Your task to perform on an android device: Search for hotels in Seattle Image 0: 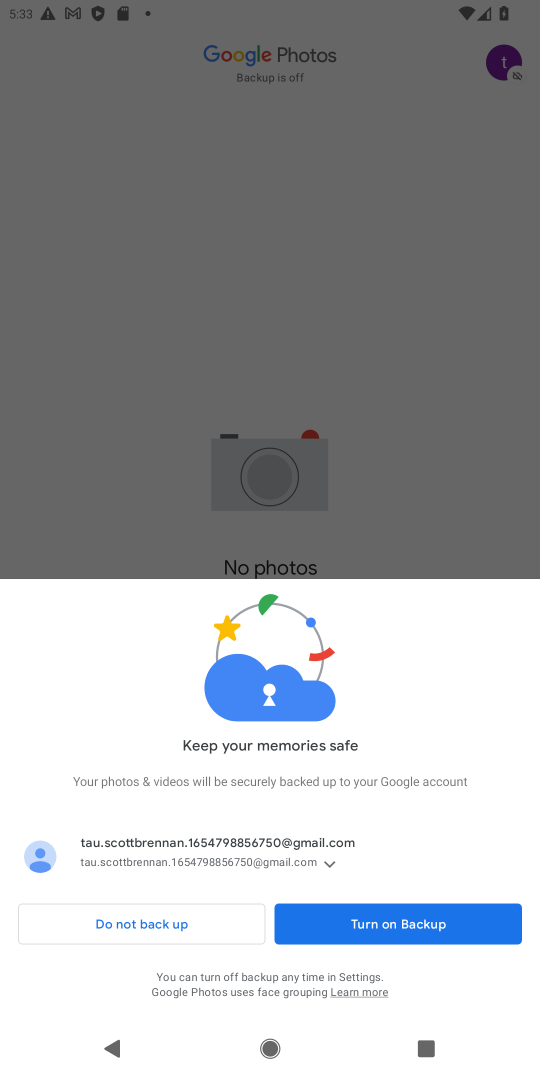
Step 0: press home button
Your task to perform on an android device: Search for hotels in Seattle Image 1: 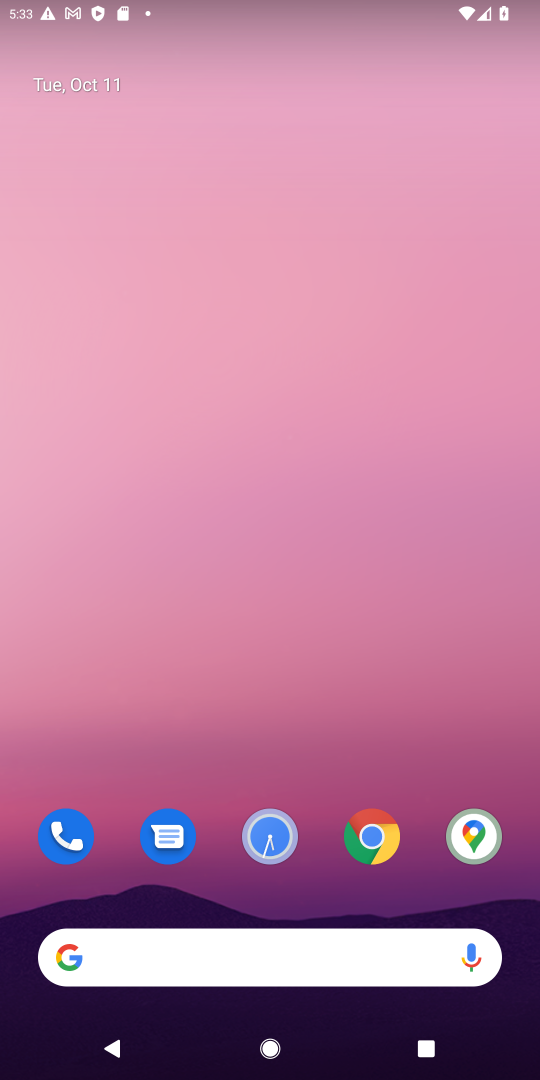
Step 1: click (372, 838)
Your task to perform on an android device: Search for hotels in Seattle Image 2: 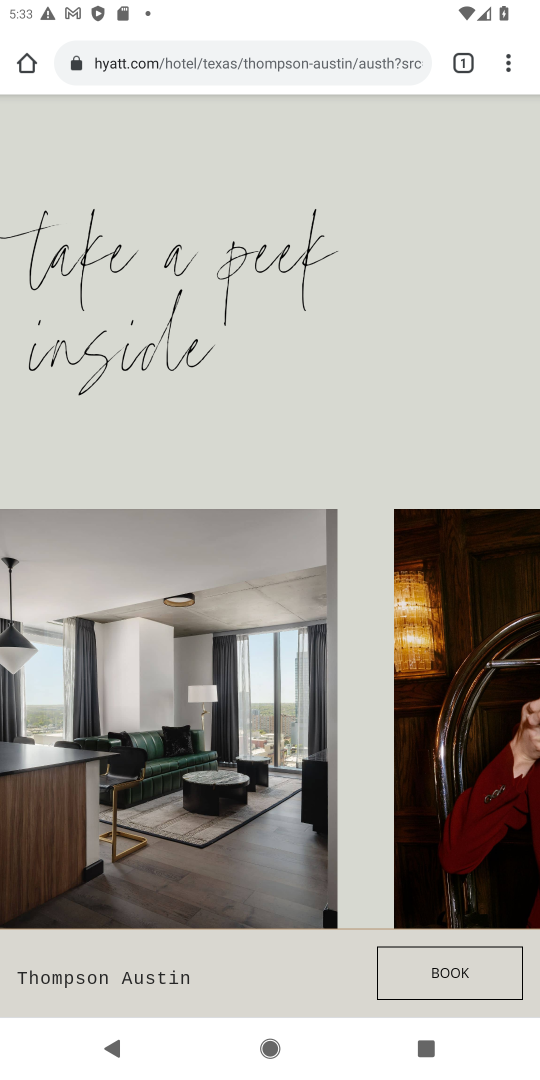
Step 2: click (243, 47)
Your task to perform on an android device: Search for hotels in Seattle Image 3: 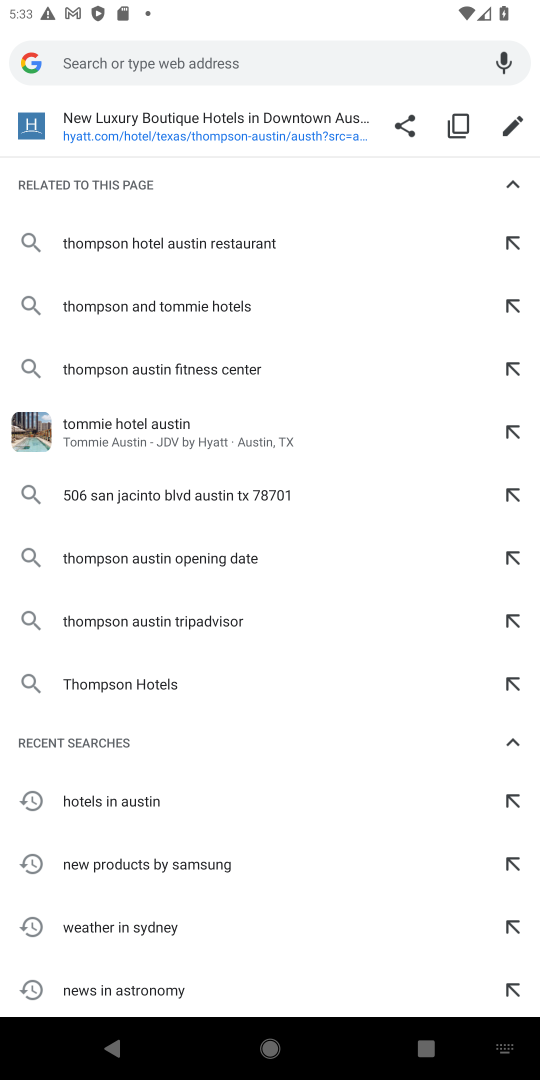
Step 3: type "hotels in seattle"
Your task to perform on an android device: Search for hotels in Seattle Image 4: 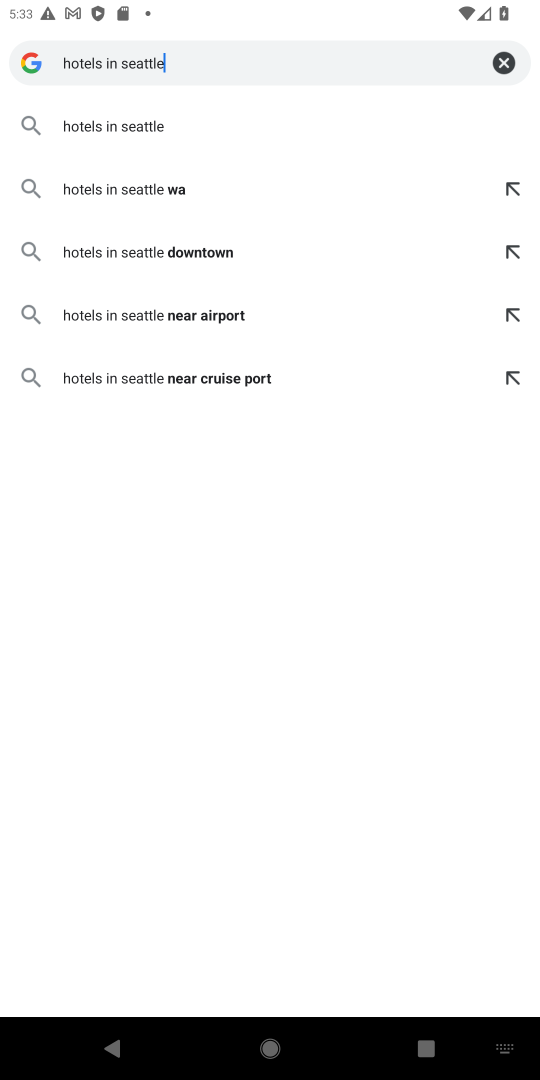
Step 4: click (103, 121)
Your task to perform on an android device: Search for hotels in Seattle Image 5: 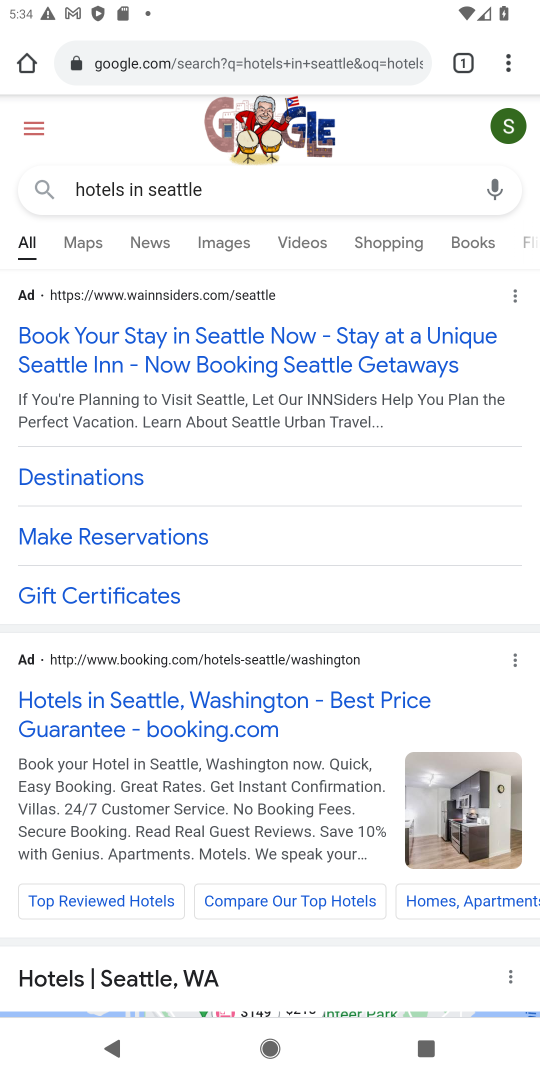
Step 5: click (131, 709)
Your task to perform on an android device: Search for hotels in Seattle Image 6: 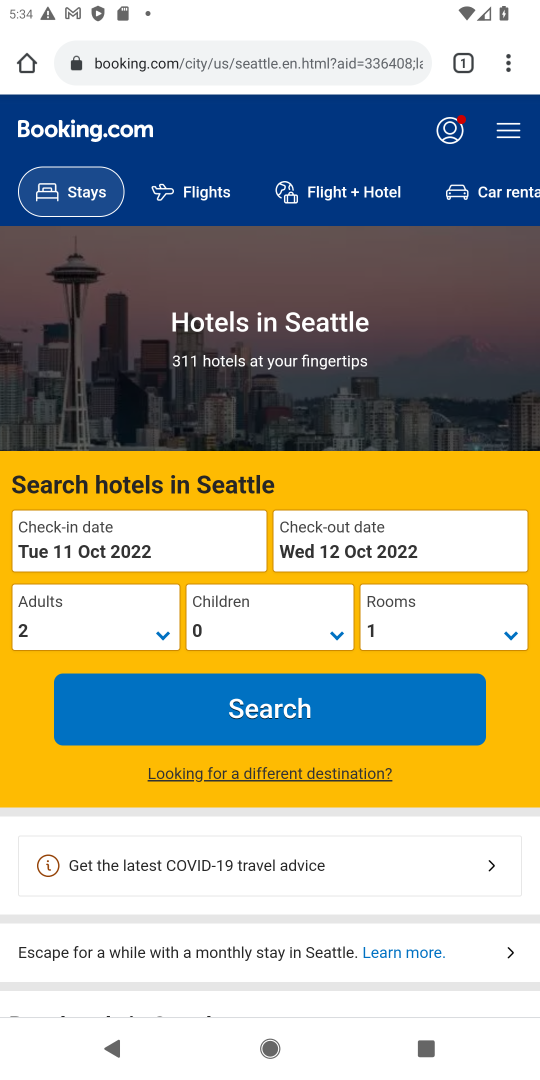
Step 6: click (264, 711)
Your task to perform on an android device: Search for hotels in Seattle Image 7: 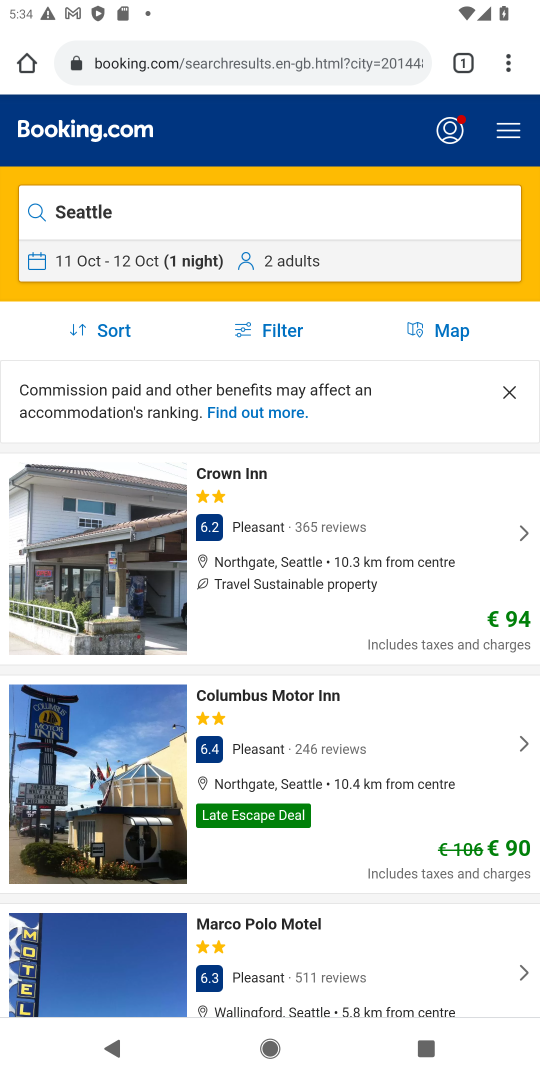
Step 7: task complete